Your task to perform on an android device: Open eBay Image 0: 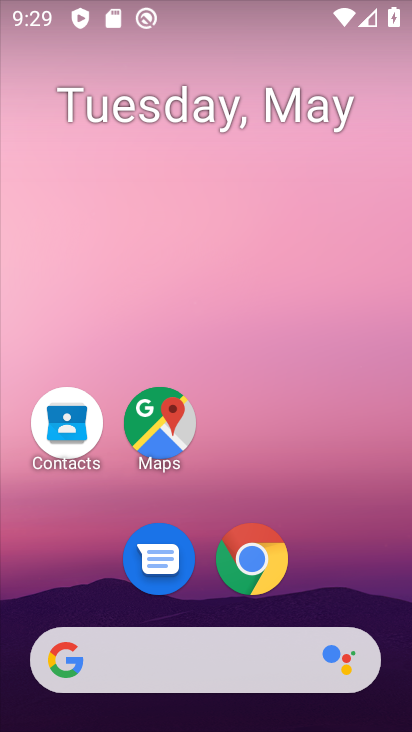
Step 0: click (210, 675)
Your task to perform on an android device: Open eBay Image 1: 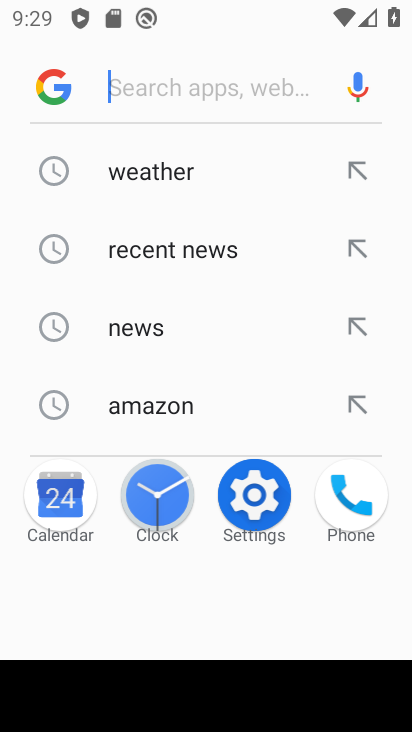
Step 1: type "ebay.com"
Your task to perform on an android device: Open eBay Image 2: 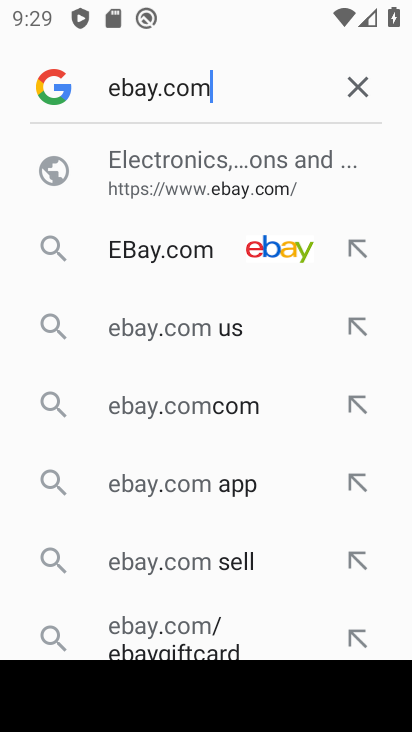
Step 2: click (125, 156)
Your task to perform on an android device: Open eBay Image 3: 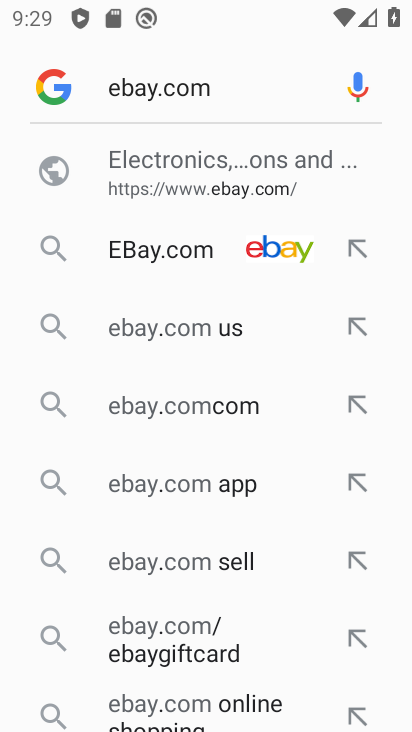
Step 3: task complete